Your task to perform on an android device: Open Google Maps Image 0: 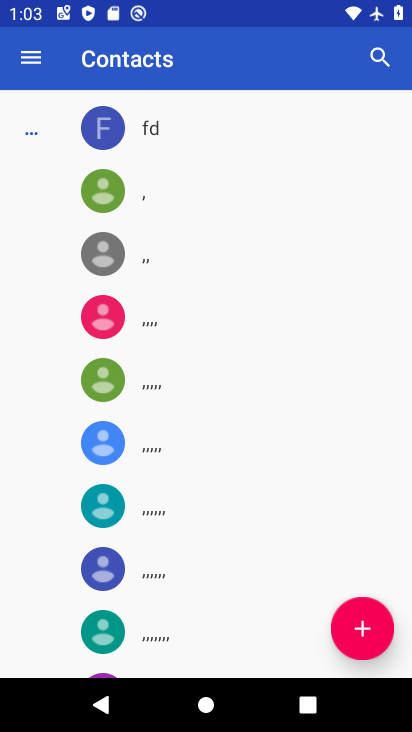
Step 0: task complete